Your task to perform on an android device: Open the web browser Image 0: 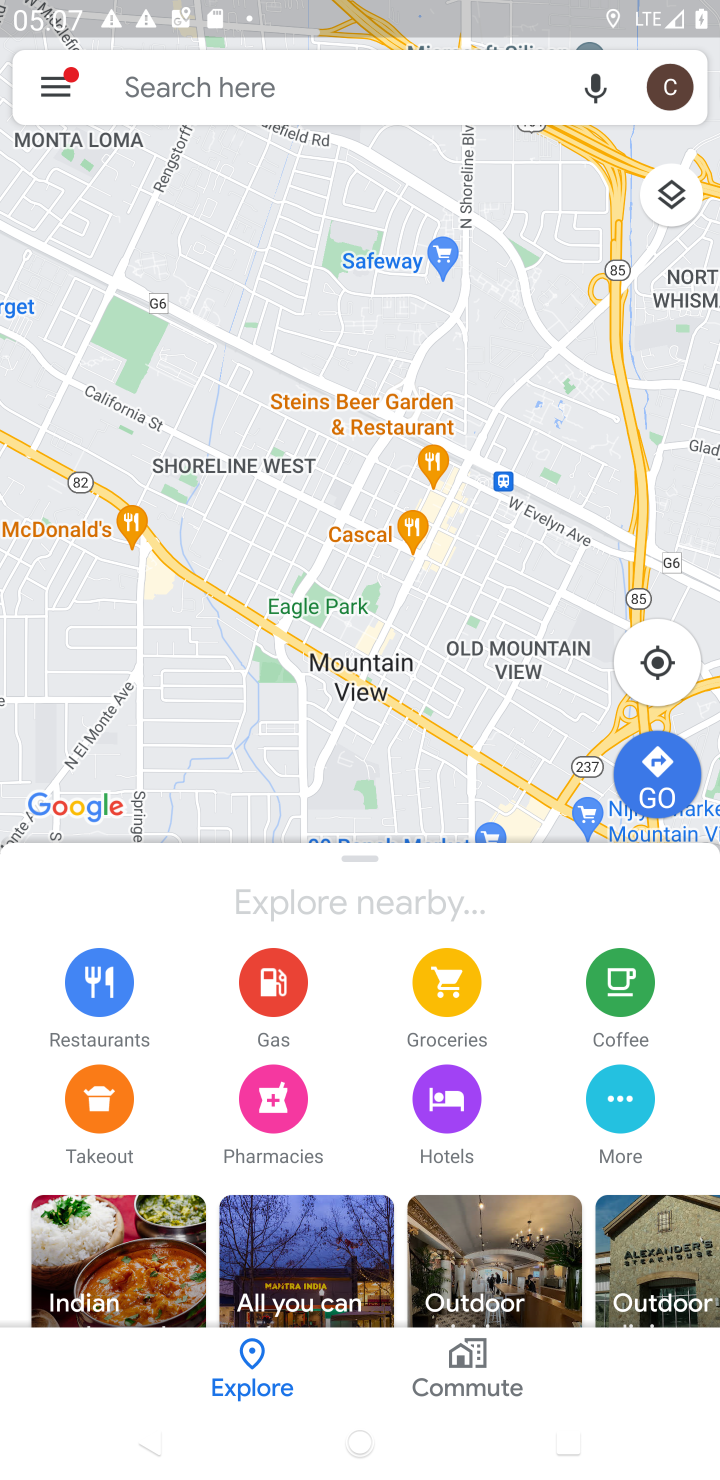
Step 0: press home button
Your task to perform on an android device: Open the web browser Image 1: 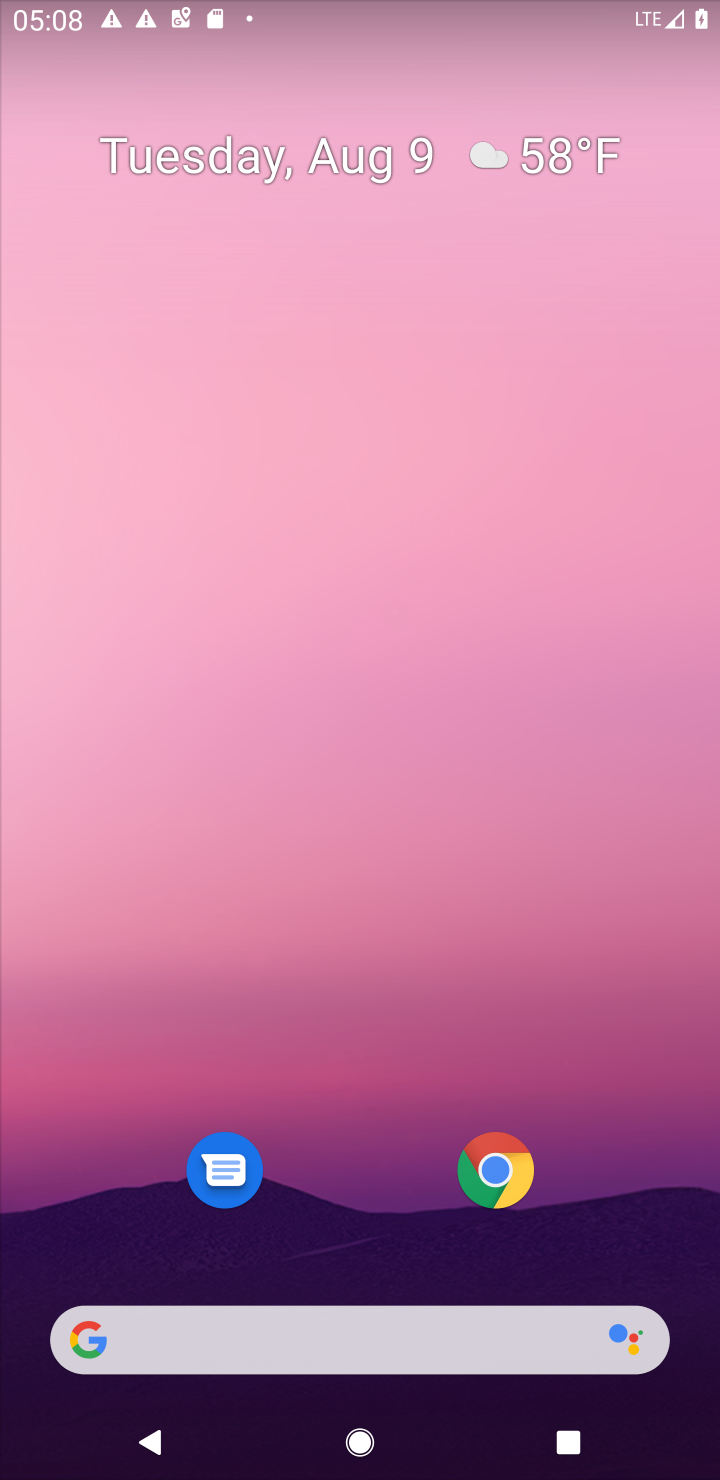
Step 1: click (85, 1329)
Your task to perform on an android device: Open the web browser Image 2: 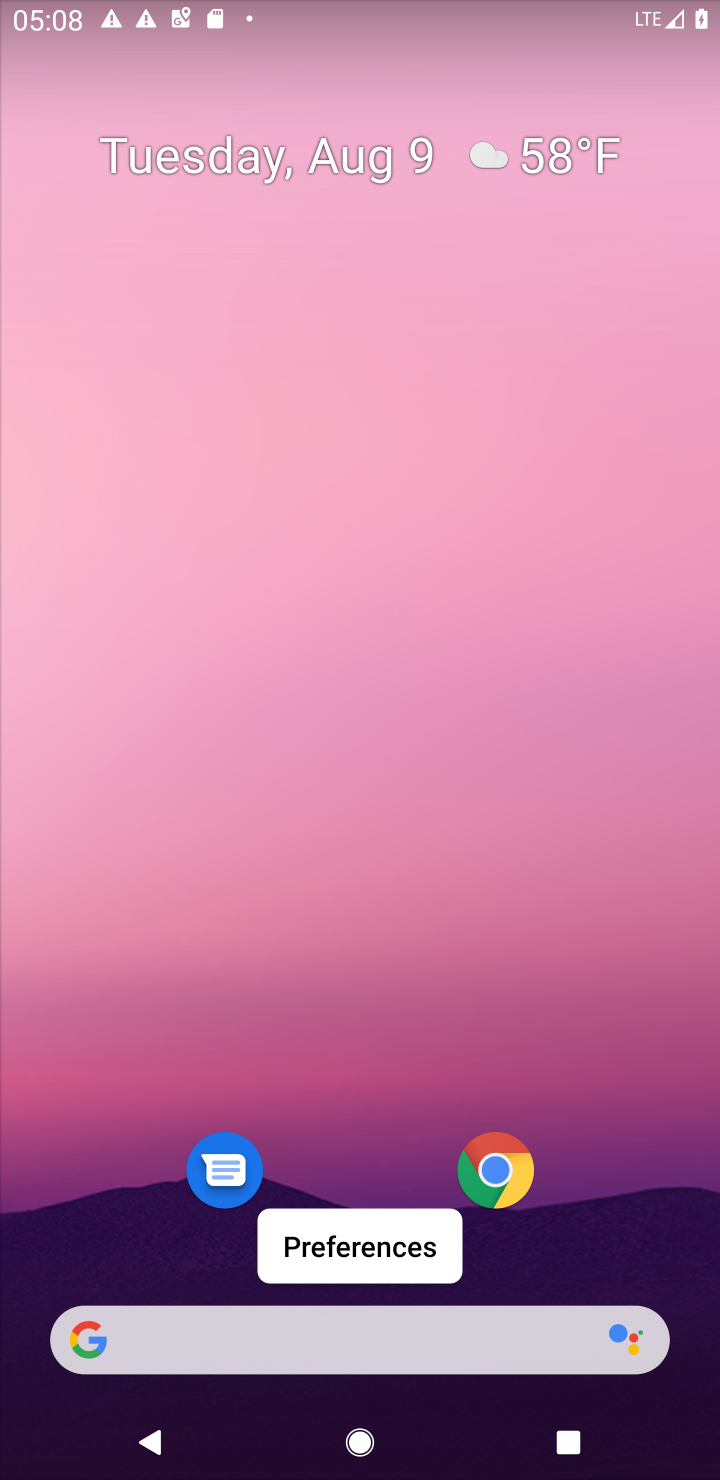
Step 2: click (85, 1329)
Your task to perform on an android device: Open the web browser Image 3: 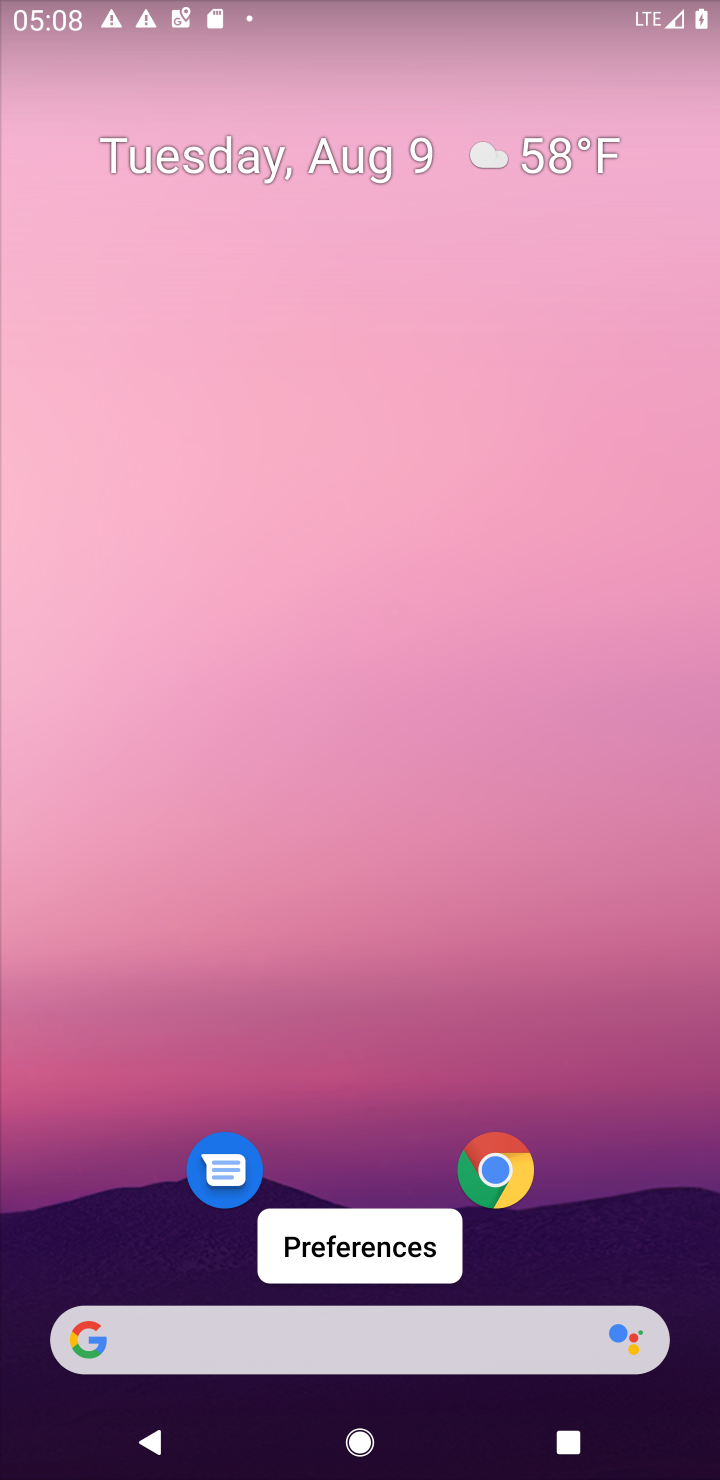
Step 3: click (93, 1340)
Your task to perform on an android device: Open the web browser Image 4: 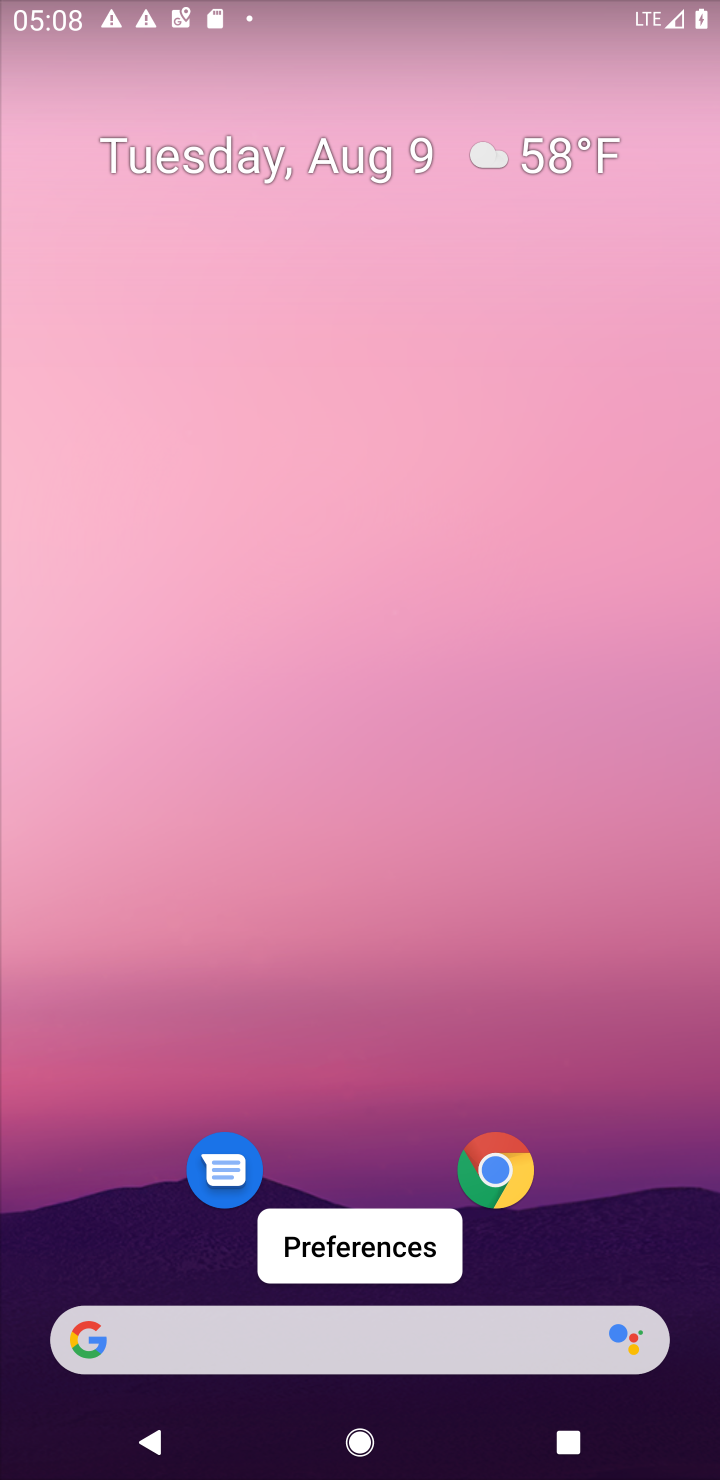
Step 4: click (92, 1338)
Your task to perform on an android device: Open the web browser Image 5: 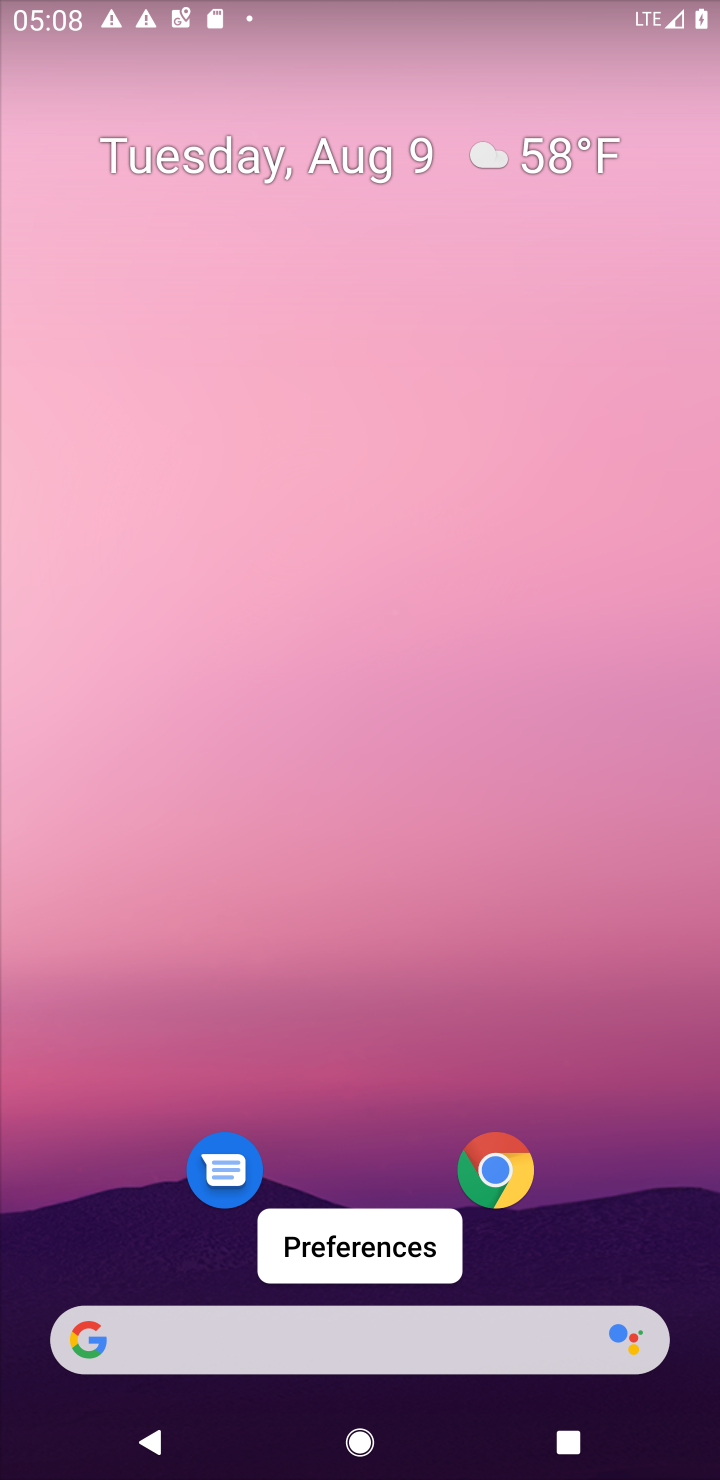
Step 5: click (84, 1338)
Your task to perform on an android device: Open the web browser Image 6: 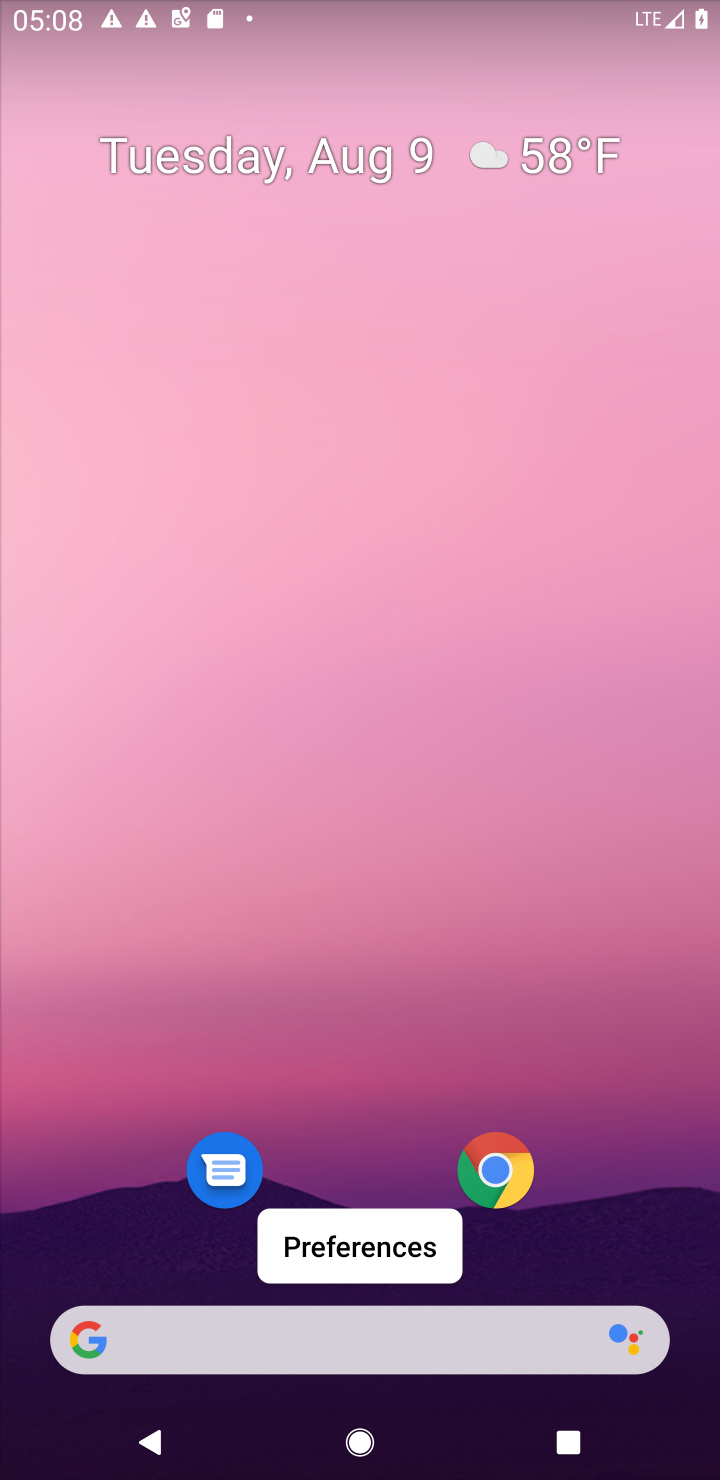
Step 6: click (84, 1338)
Your task to perform on an android device: Open the web browser Image 7: 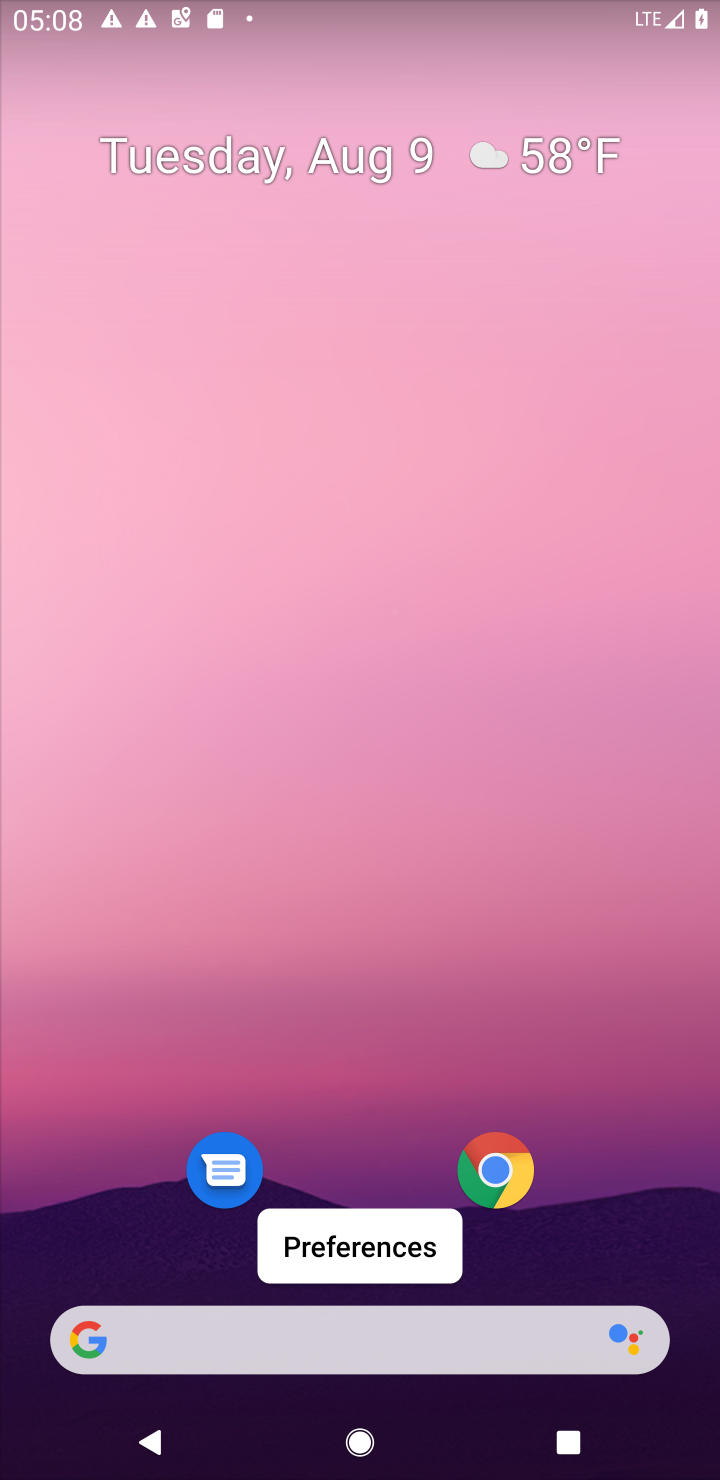
Step 7: click (57, 1328)
Your task to perform on an android device: Open the web browser Image 8: 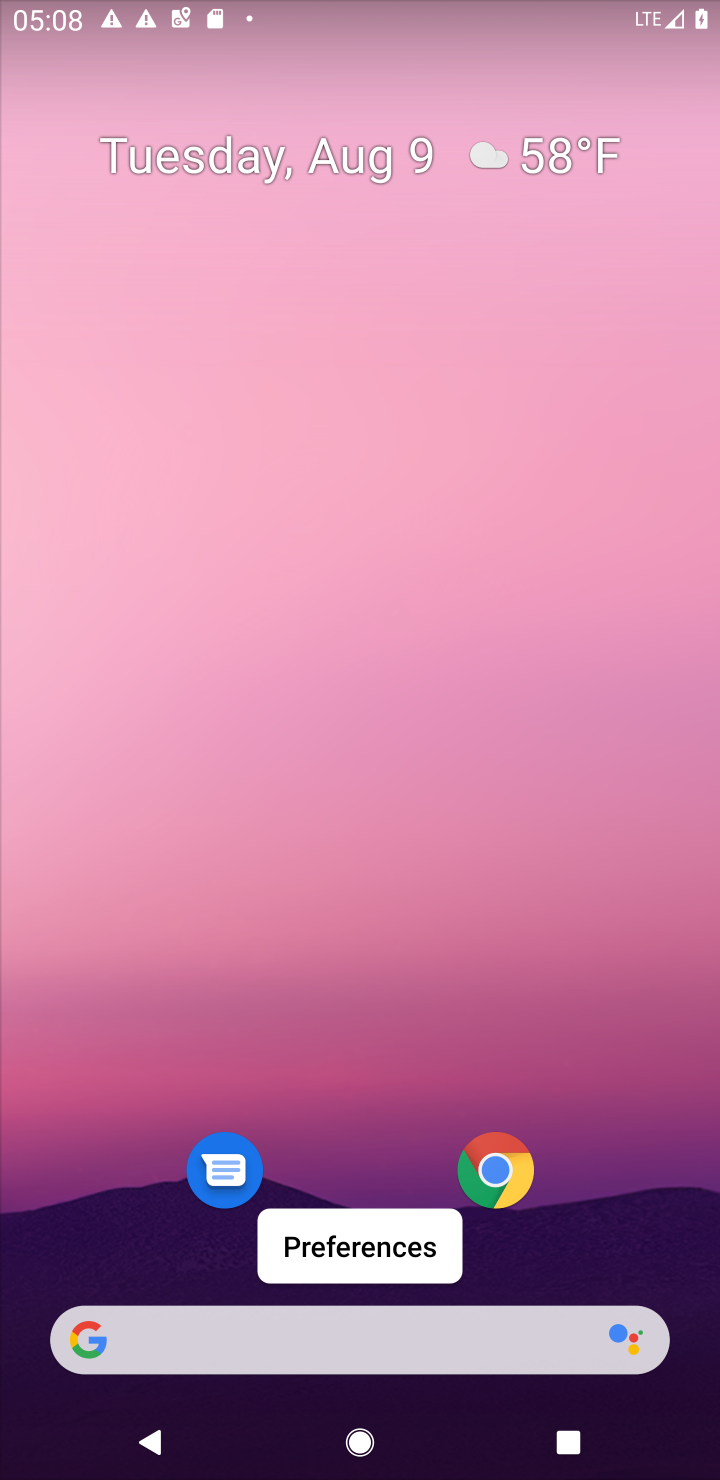
Step 8: click (68, 1335)
Your task to perform on an android device: Open the web browser Image 9: 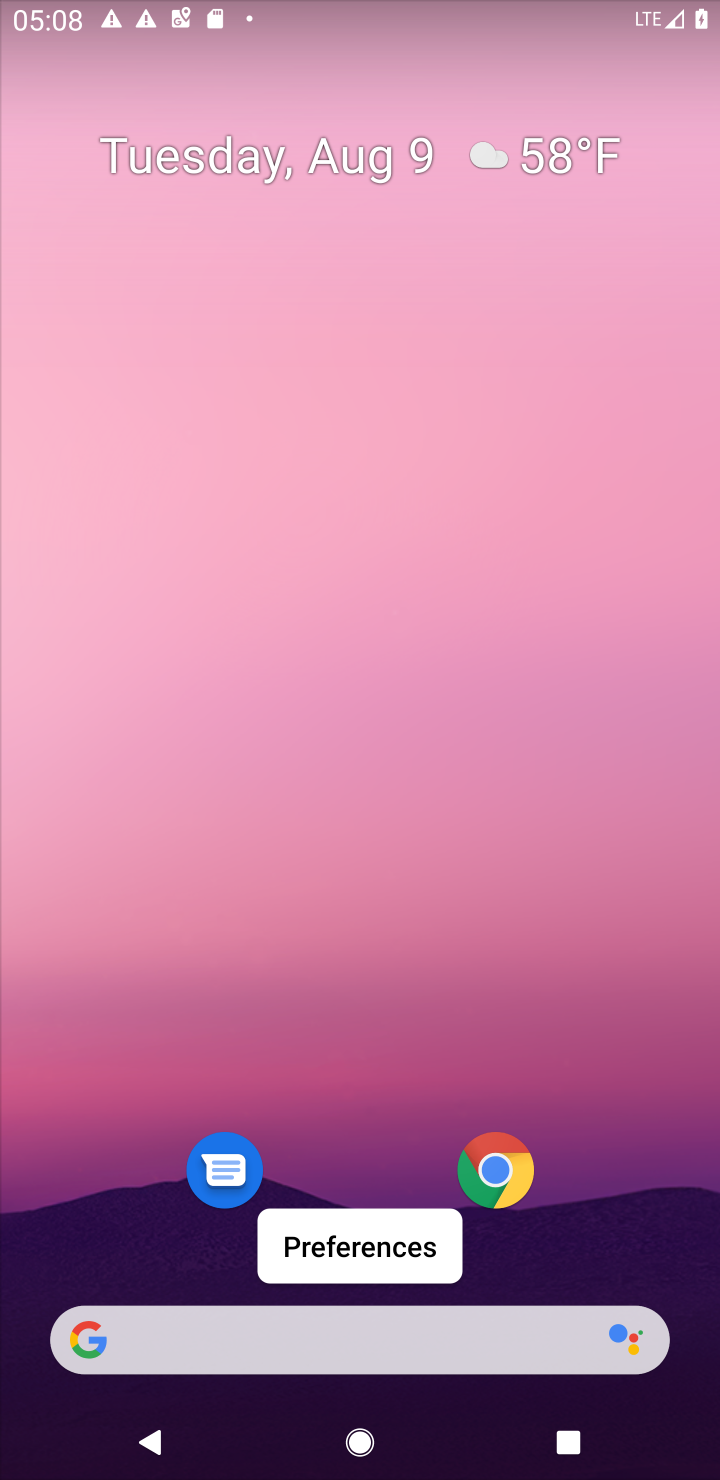
Step 9: click (80, 1346)
Your task to perform on an android device: Open the web browser Image 10: 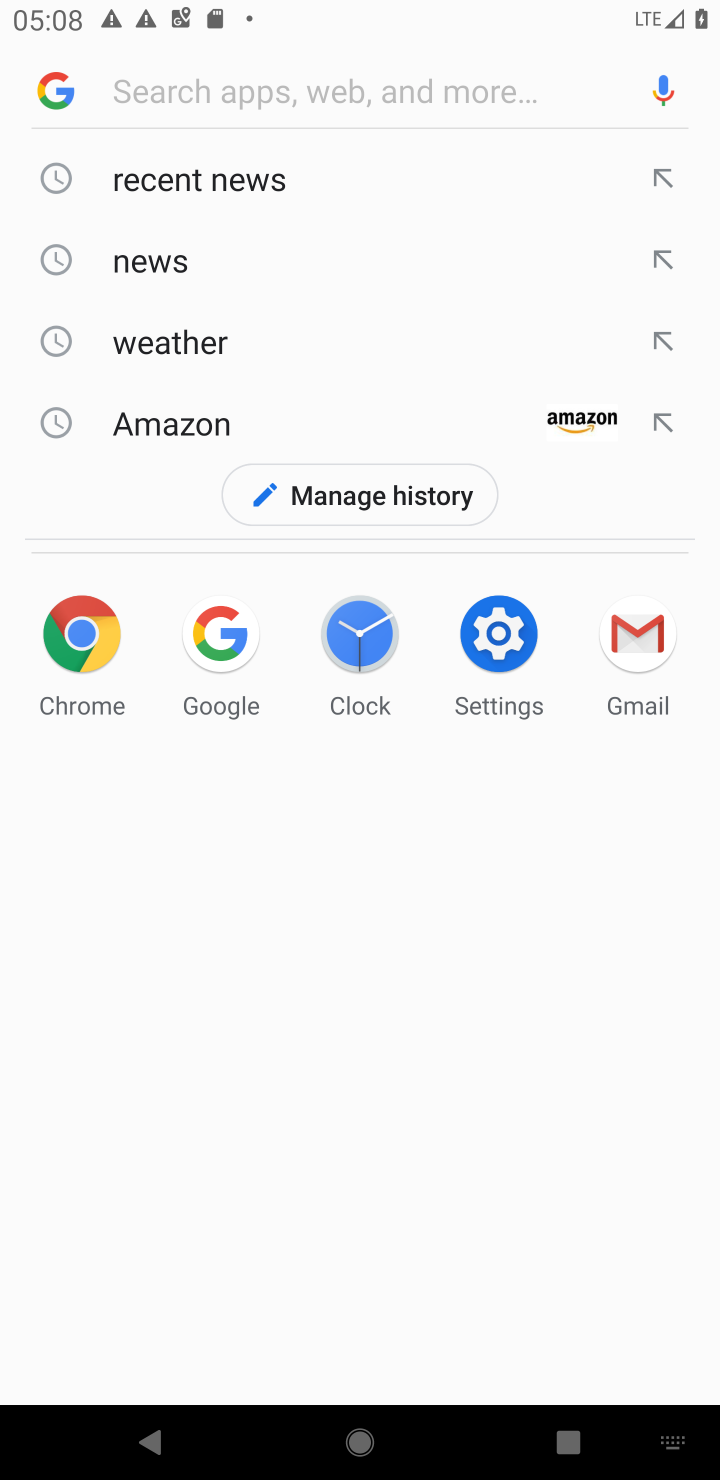
Step 10: task complete